Your task to perform on an android device: Open Youtube and go to "Your channel" Image 0: 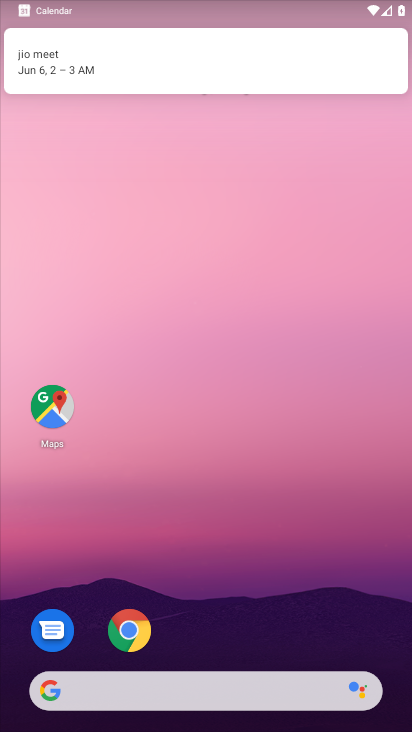
Step 0: drag from (257, 636) to (290, 241)
Your task to perform on an android device: Open Youtube and go to "Your channel" Image 1: 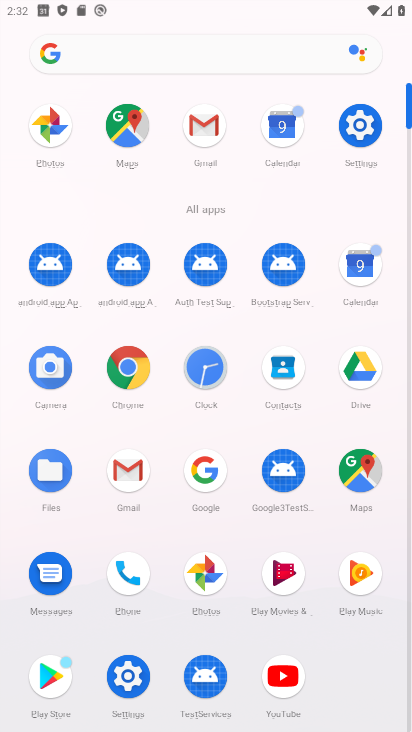
Step 1: click (294, 682)
Your task to perform on an android device: Open Youtube and go to "Your channel" Image 2: 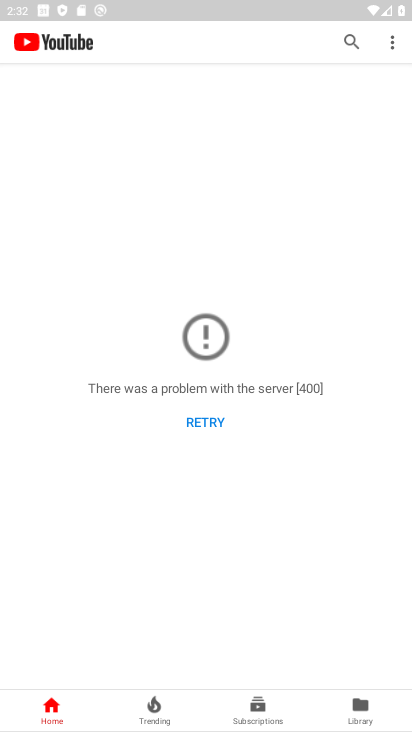
Step 2: task complete